Your task to perform on an android device: Do I have any events today? Image 0: 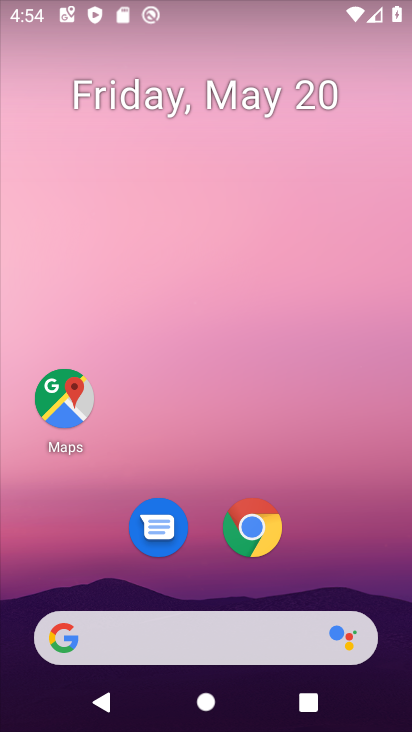
Step 0: drag from (216, 607) to (250, 152)
Your task to perform on an android device: Do I have any events today? Image 1: 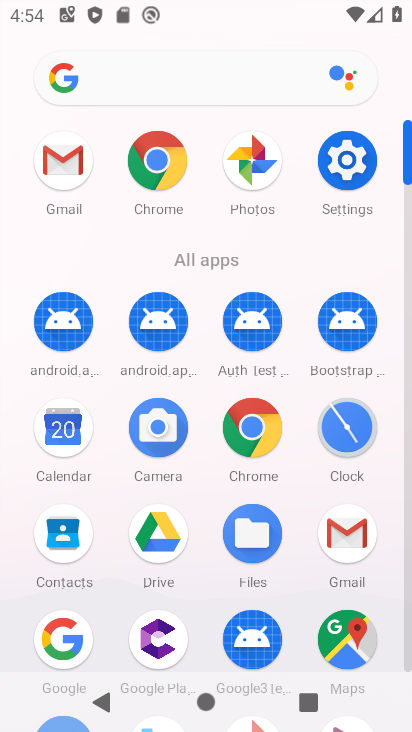
Step 1: click (58, 438)
Your task to perform on an android device: Do I have any events today? Image 2: 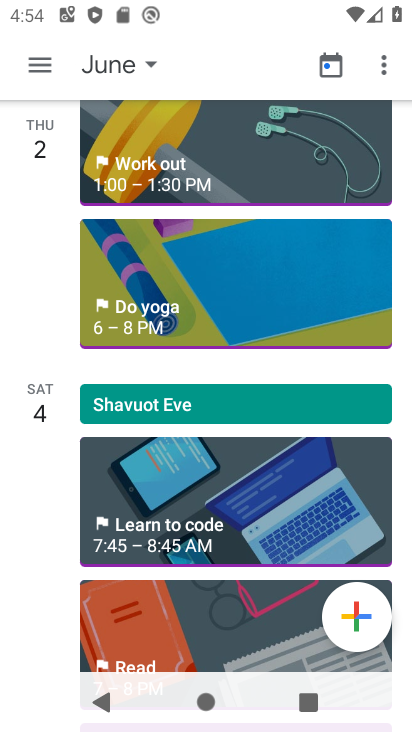
Step 2: click (118, 72)
Your task to perform on an android device: Do I have any events today? Image 3: 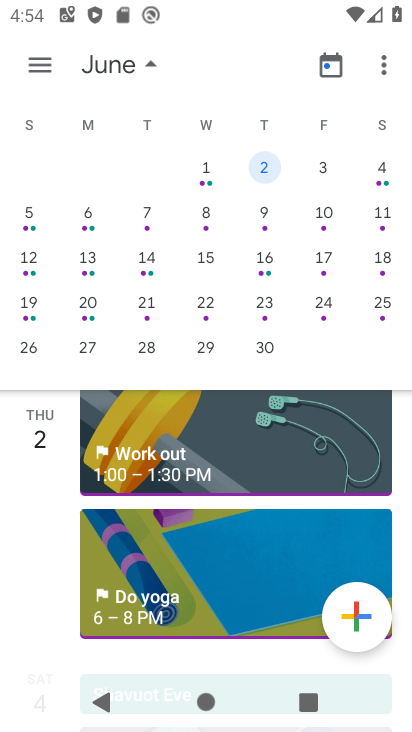
Step 3: drag from (28, 244) to (408, 260)
Your task to perform on an android device: Do I have any events today? Image 4: 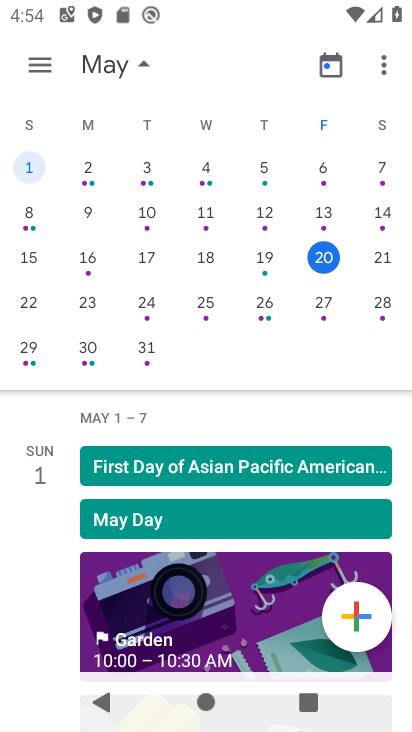
Step 4: click (322, 257)
Your task to perform on an android device: Do I have any events today? Image 5: 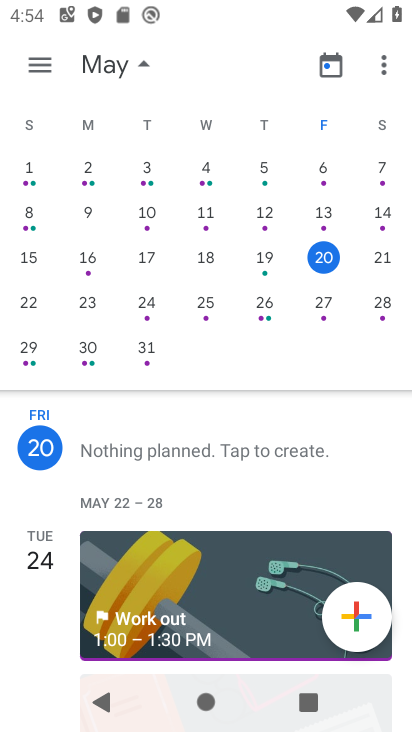
Step 5: click (159, 462)
Your task to perform on an android device: Do I have any events today? Image 6: 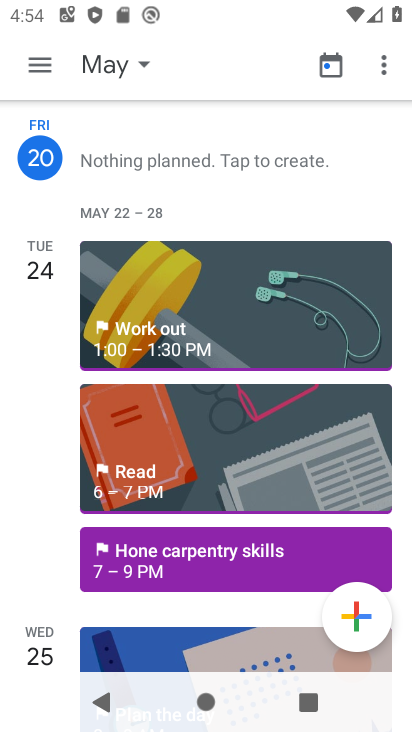
Step 6: task complete